Your task to perform on an android device: set the stopwatch Image 0: 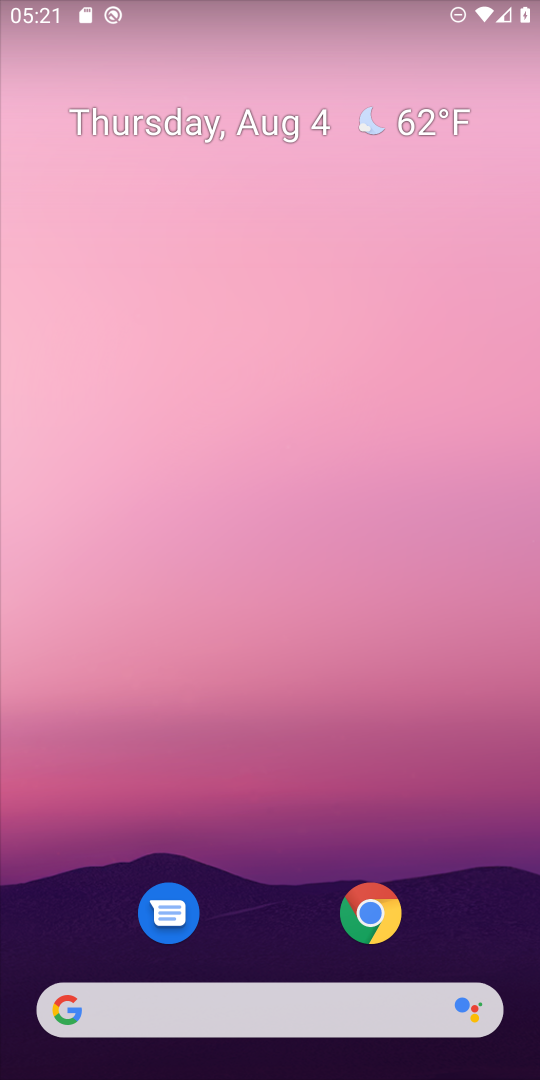
Step 0: drag from (349, 823) to (431, 12)
Your task to perform on an android device: set the stopwatch Image 1: 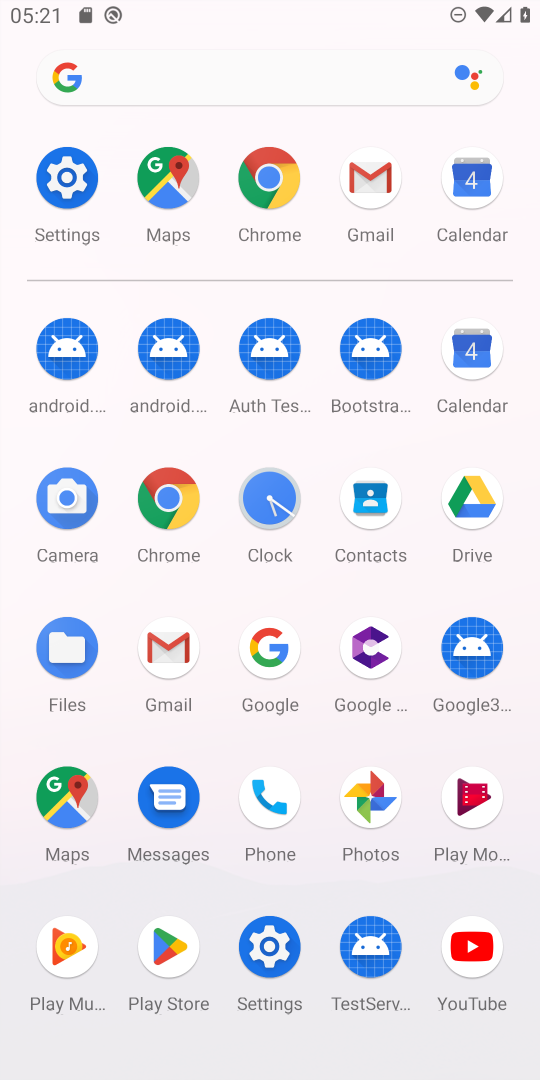
Step 1: click (266, 495)
Your task to perform on an android device: set the stopwatch Image 2: 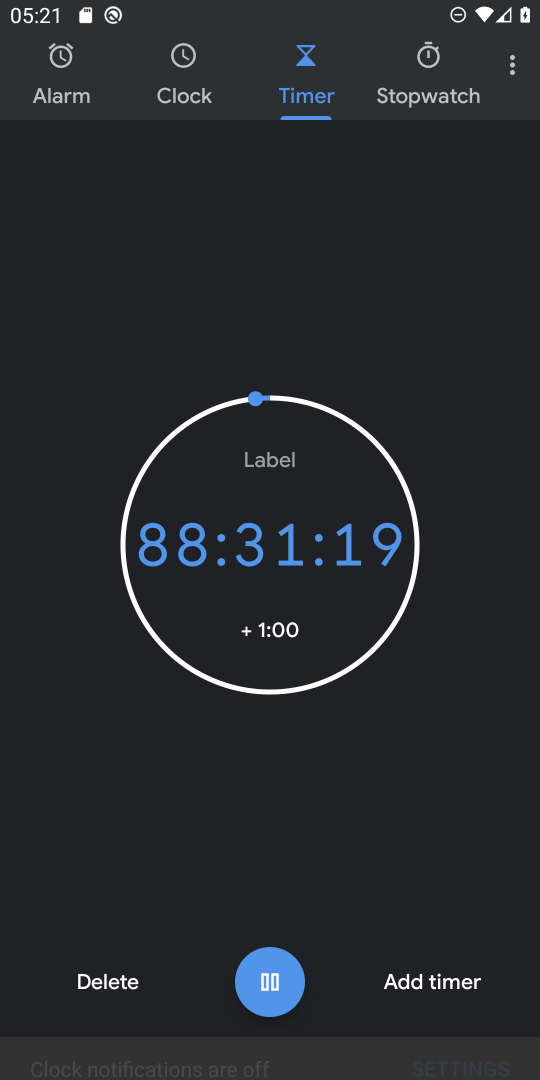
Step 2: click (443, 84)
Your task to perform on an android device: set the stopwatch Image 3: 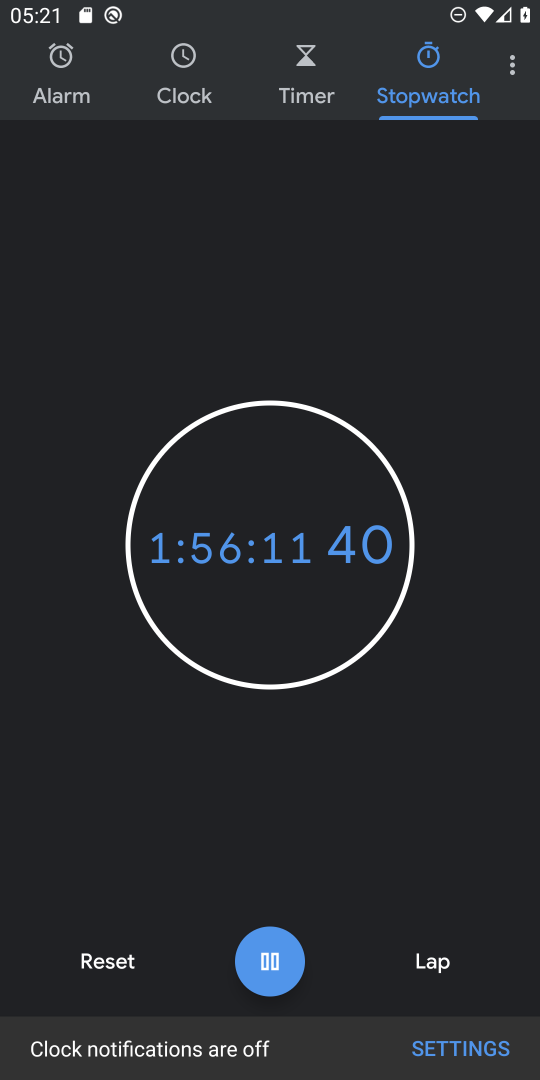
Step 3: task complete